Your task to perform on an android device: see tabs open on other devices in the chrome app Image 0: 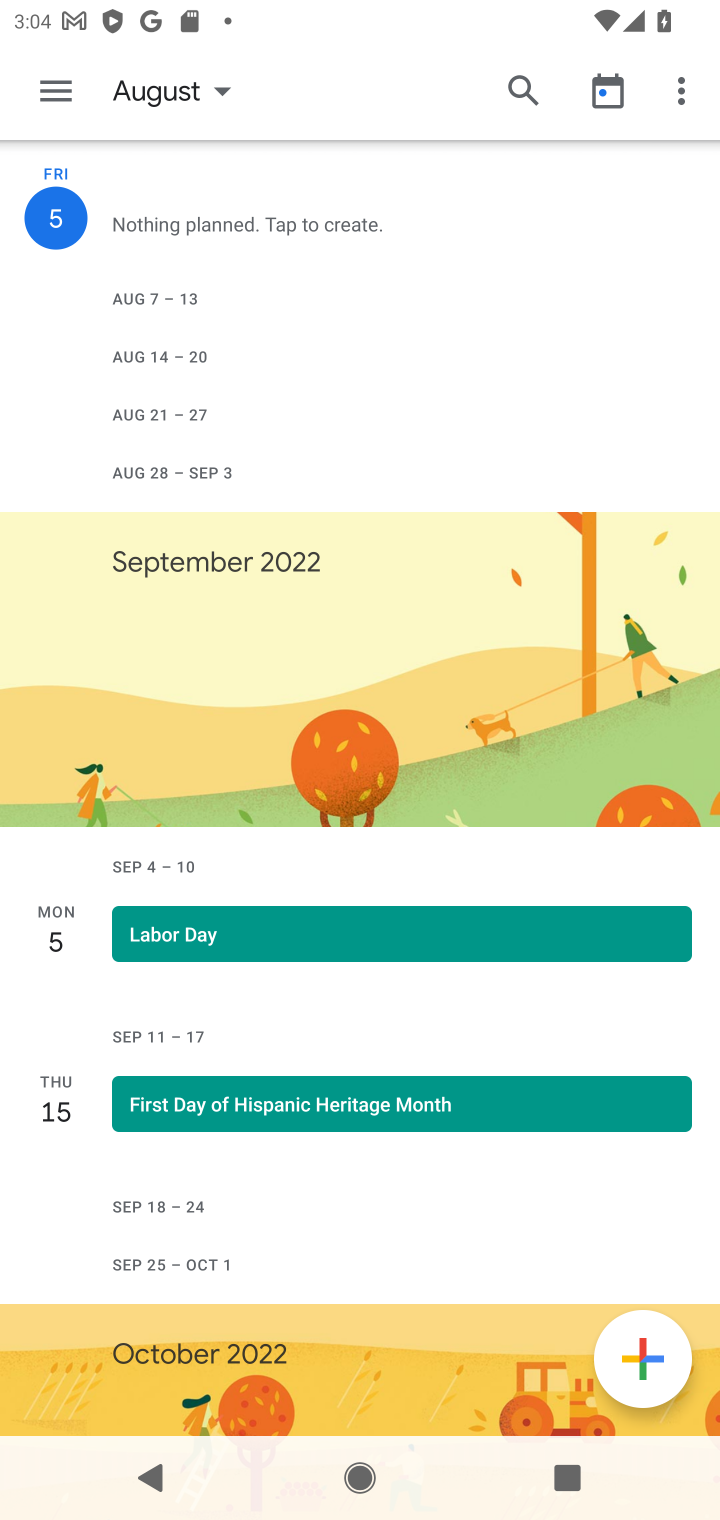
Step 0: press home button
Your task to perform on an android device: see tabs open on other devices in the chrome app Image 1: 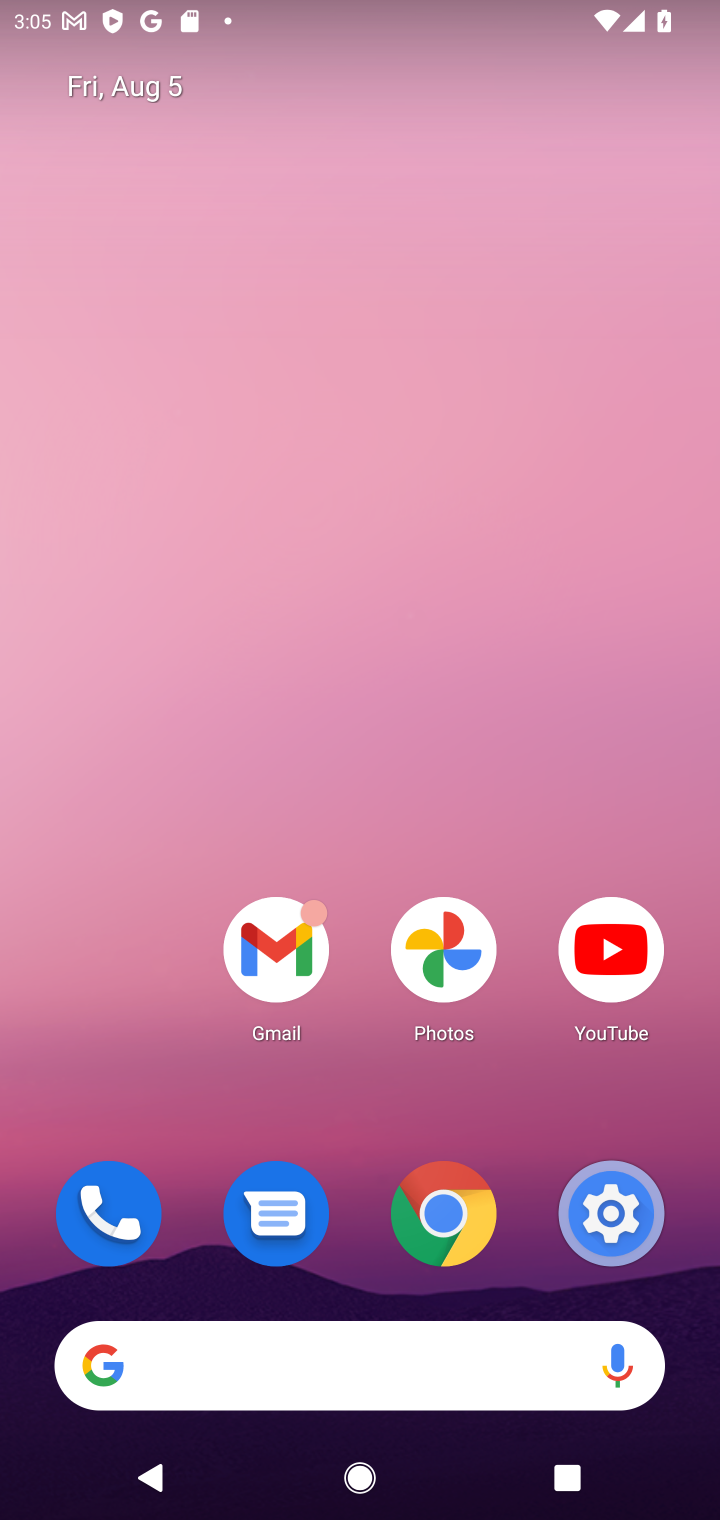
Step 1: click (423, 1194)
Your task to perform on an android device: see tabs open on other devices in the chrome app Image 2: 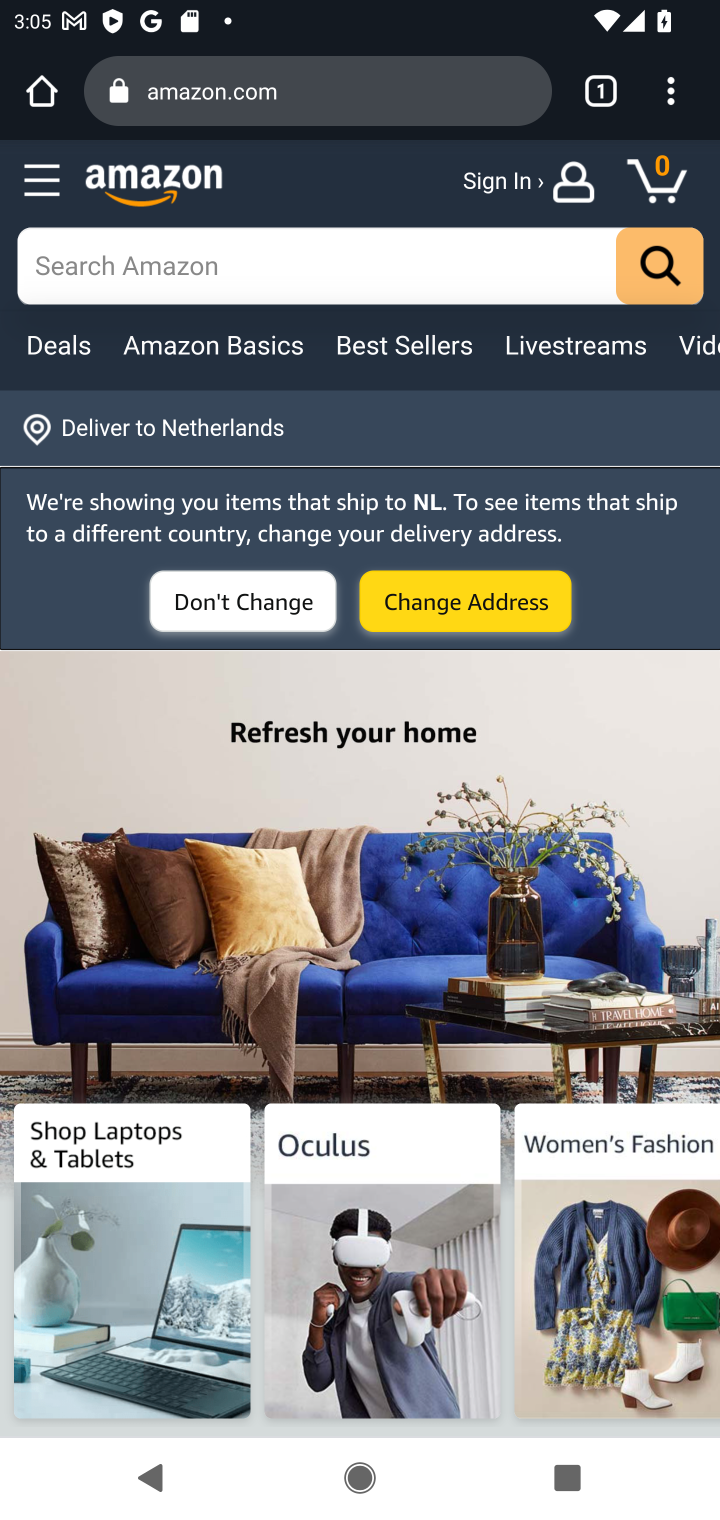
Step 2: click (688, 82)
Your task to perform on an android device: see tabs open on other devices in the chrome app Image 3: 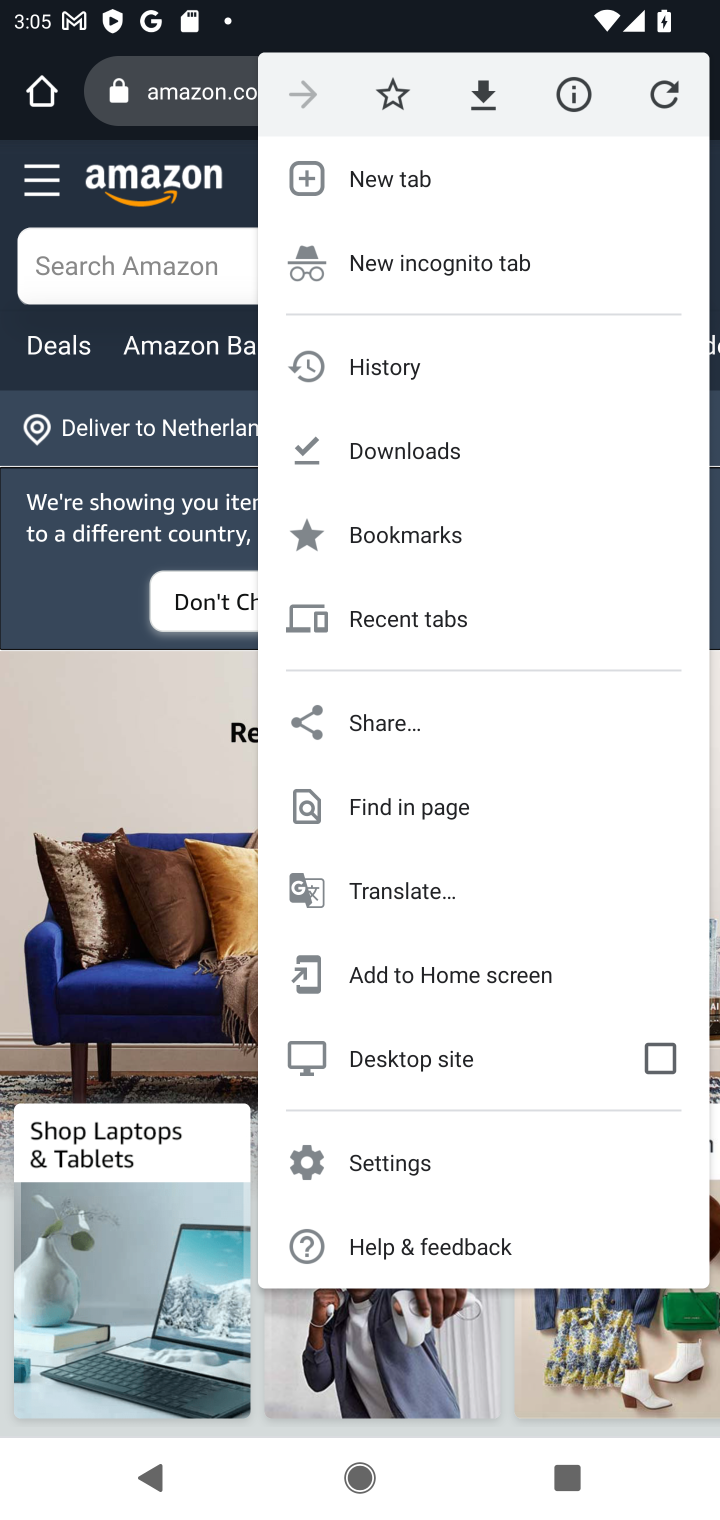
Step 3: click (432, 1147)
Your task to perform on an android device: see tabs open on other devices in the chrome app Image 4: 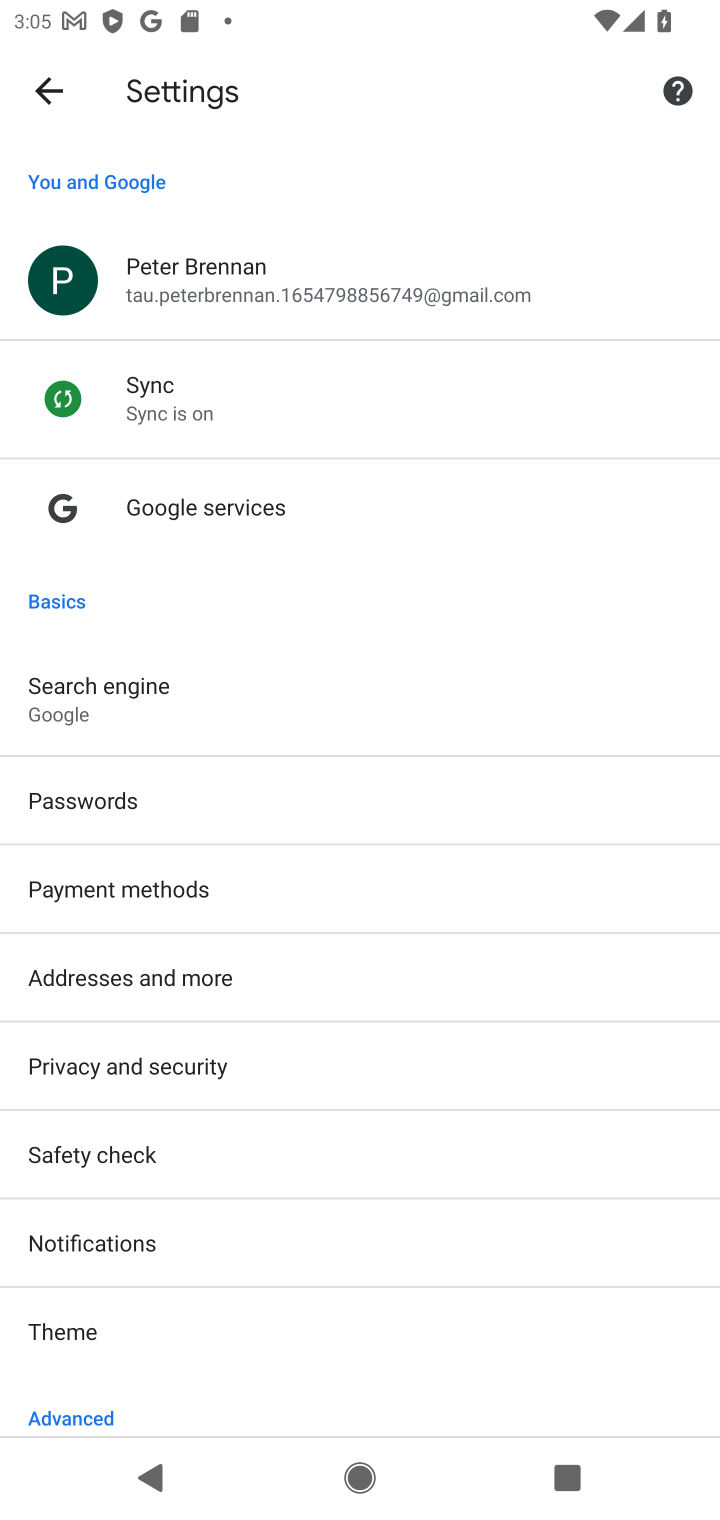
Step 4: task complete